Your task to perform on an android device: Search for acer predator on amazon.com, select the first entry, and add it to the cart. Image 0: 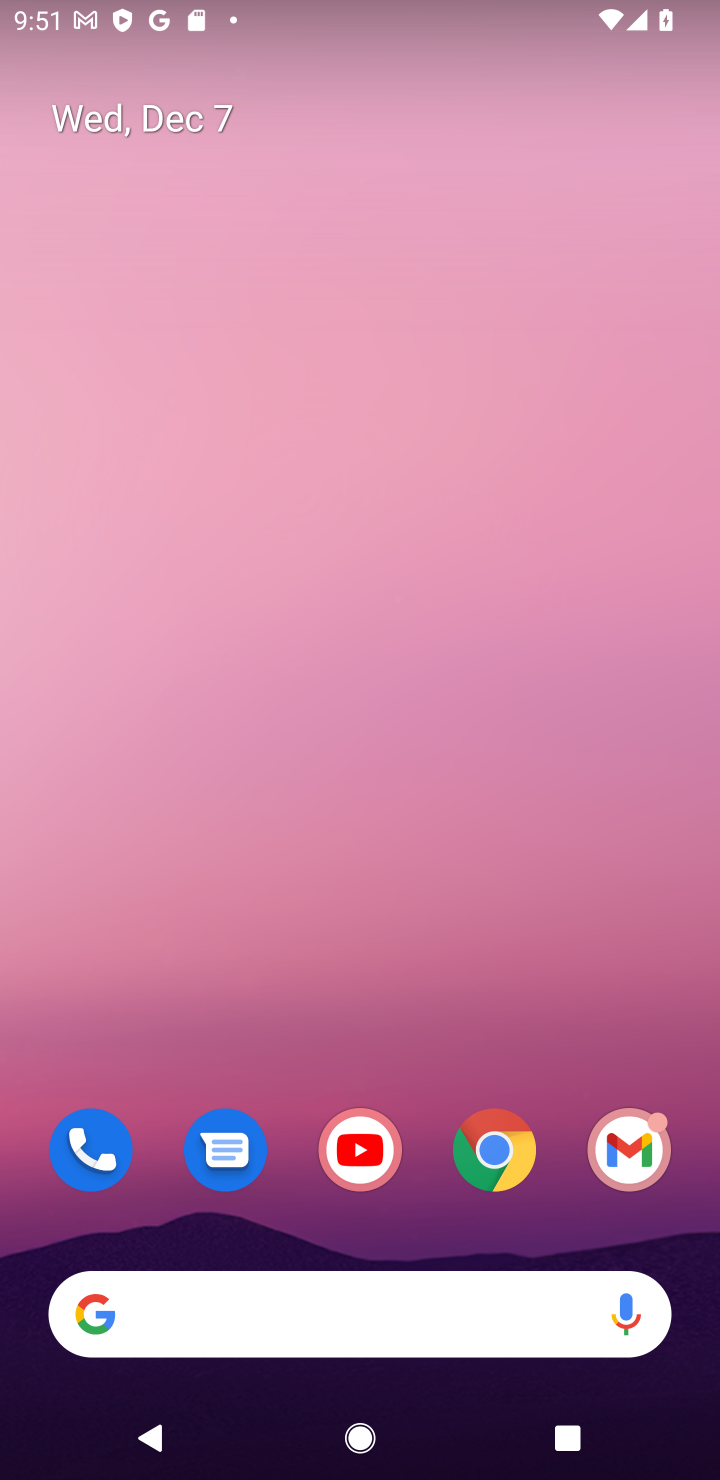
Step 0: click (498, 1142)
Your task to perform on an android device: Search for acer predator on amazon.com, select the first entry, and add it to the cart. Image 1: 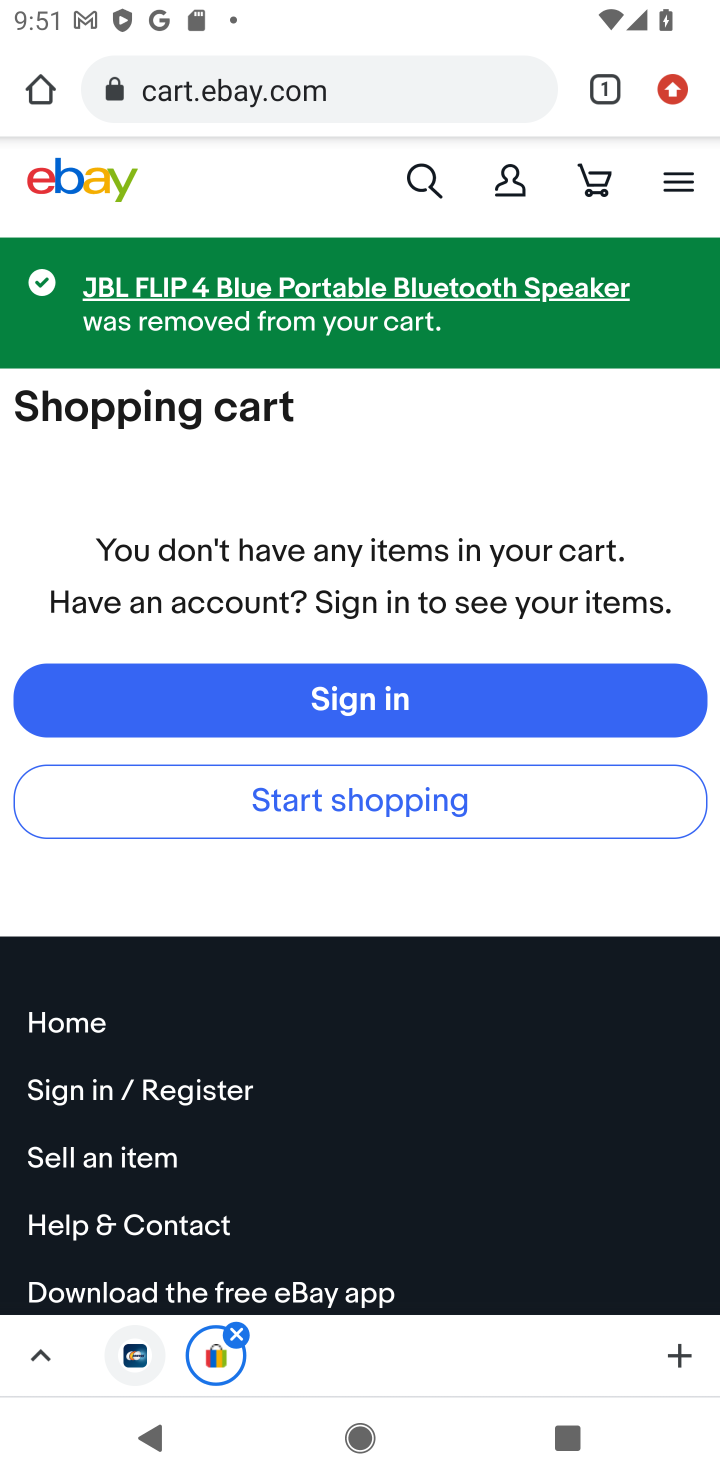
Step 1: click (422, 93)
Your task to perform on an android device: Search for acer predator on amazon.com, select the first entry, and add it to the cart. Image 2: 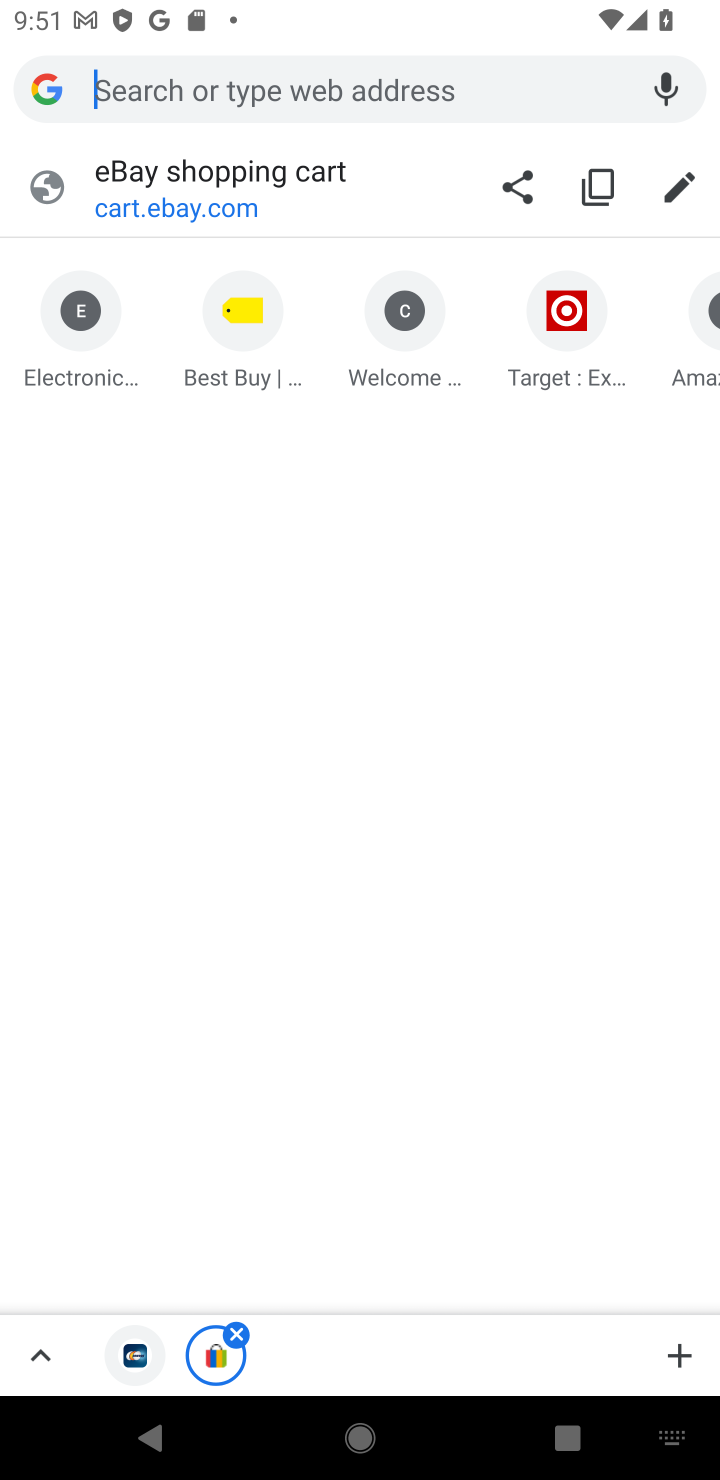
Step 2: type "amazon.com"
Your task to perform on an android device: Search for acer predator on amazon.com, select the first entry, and add it to the cart. Image 3: 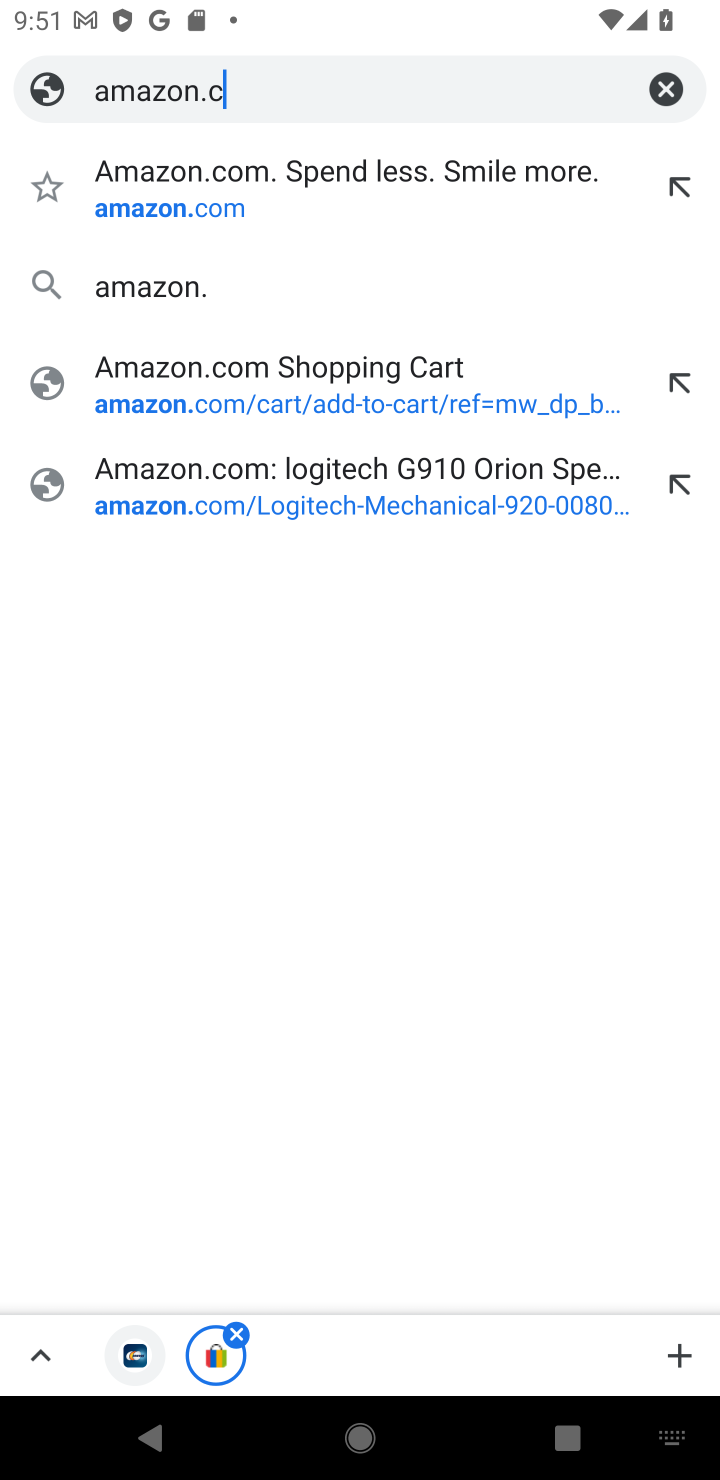
Step 3: press enter
Your task to perform on an android device: Search for acer predator on amazon.com, select the first entry, and add it to the cart. Image 4: 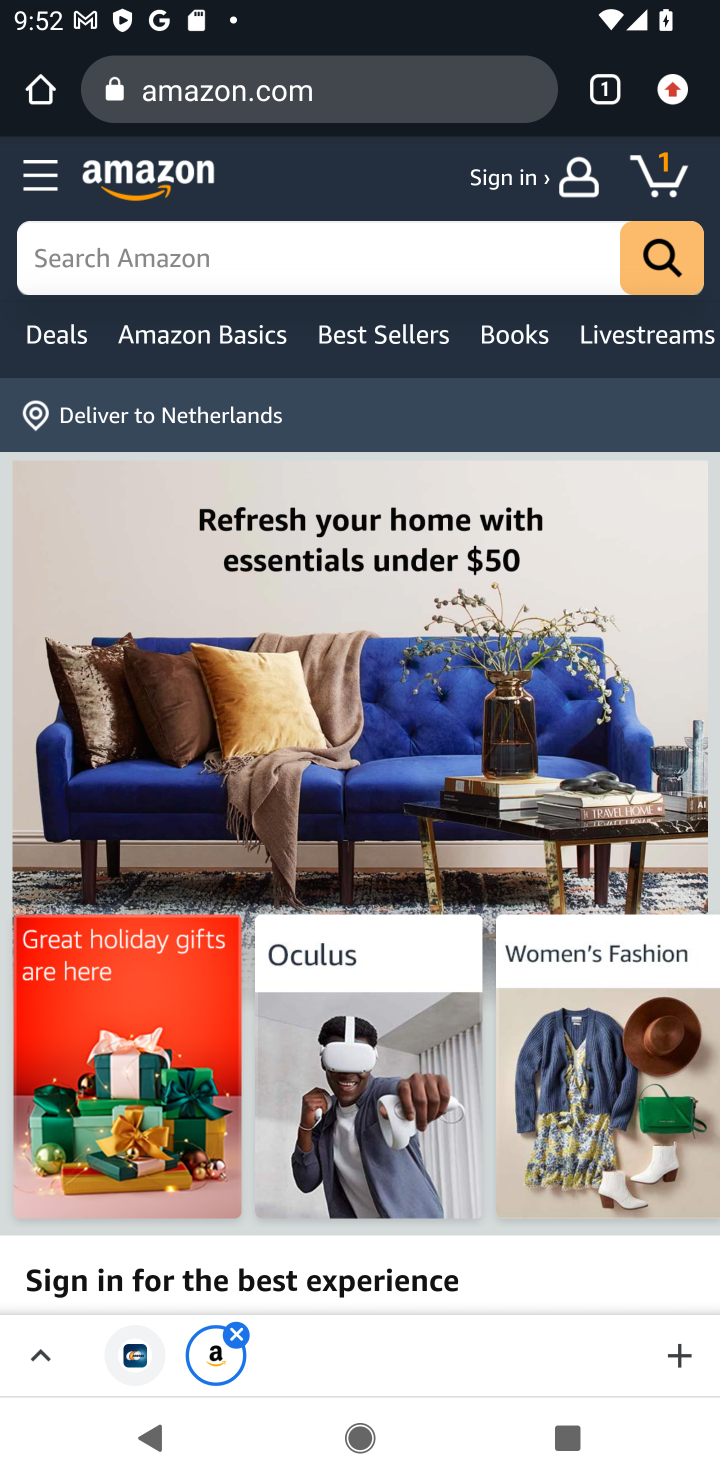
Step 4: click (353, 239)
Your task to perform on an android device: Search for acer predator on amazon.com, select the first entry, and add it to the cart. Image 5: 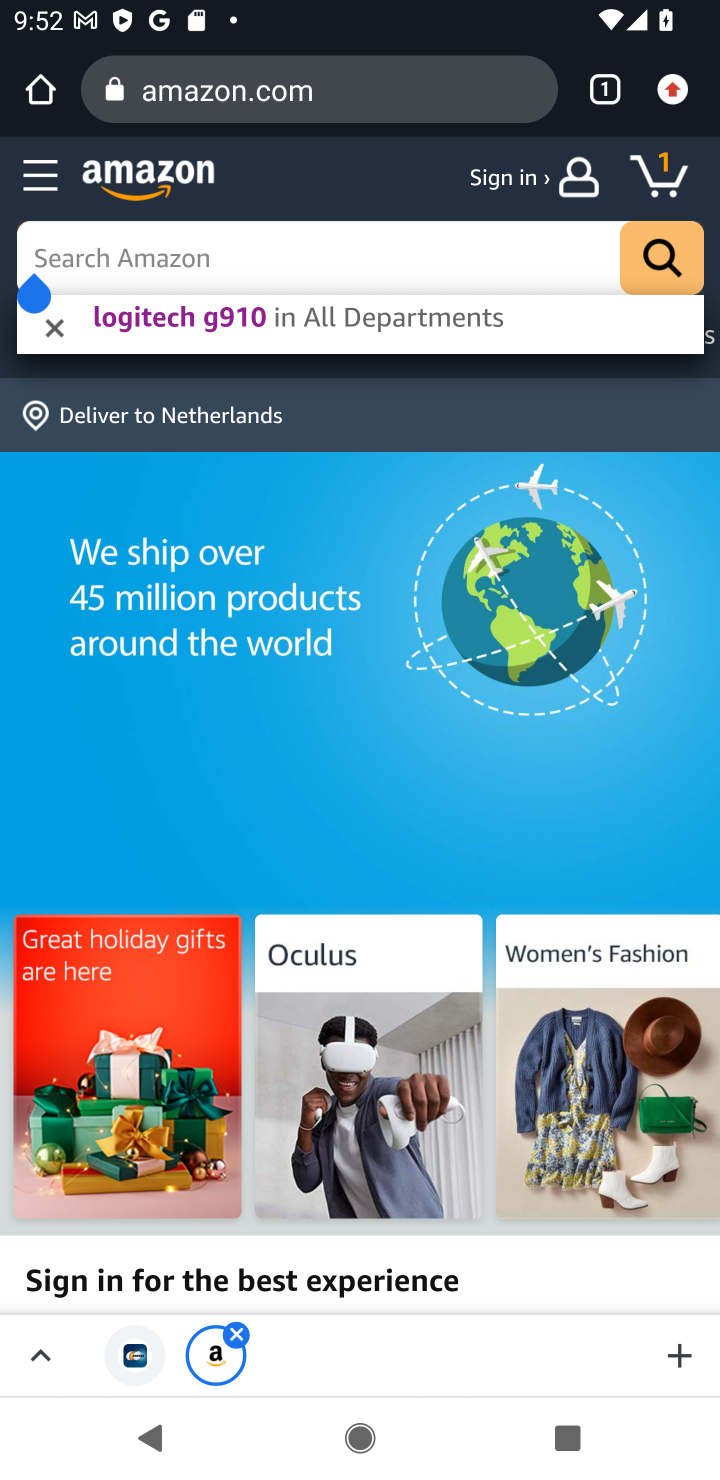
Step 5: press enter
Your task to perform on an android device: Search for acer predator on amazon.com, select the first entry, and add it to the cart. Image 6: 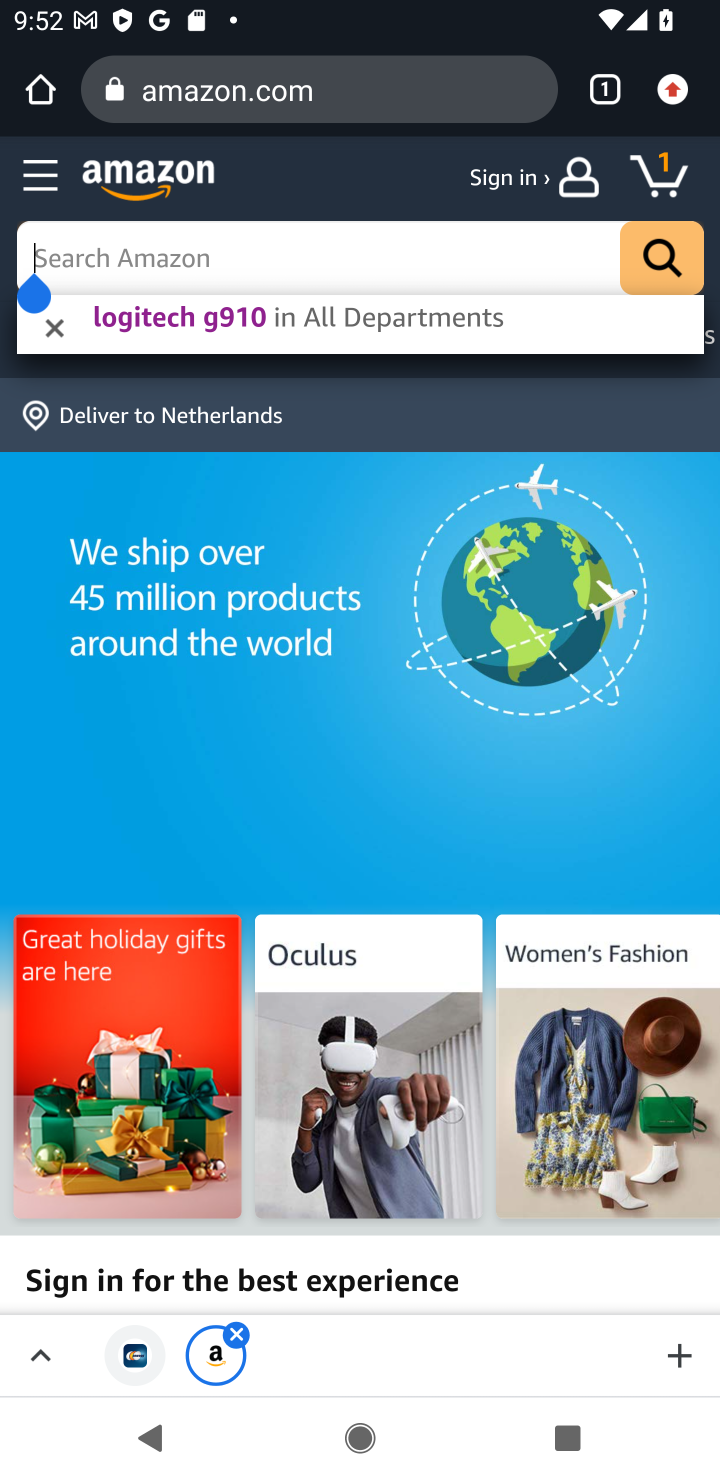
Step 6: type "acer predator"
Your task to perform on an android device: Search for acer predator on amazon.com, select the first entry, and add it to the cart. Image 7: 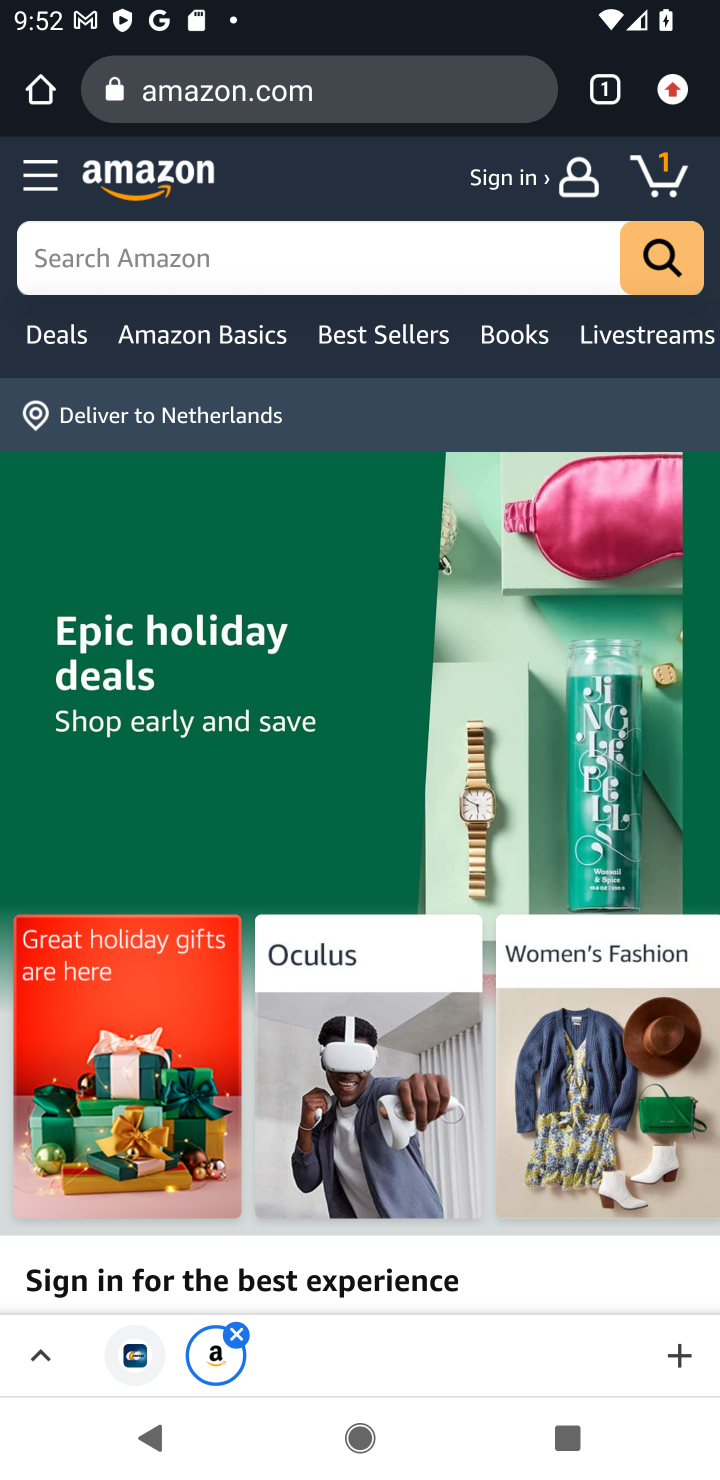
Step 7: type "acer predator"
Your task to perform on an android device: Search for acer predator on amazon.com, select the first entry, and add it to the cart. Image 8: 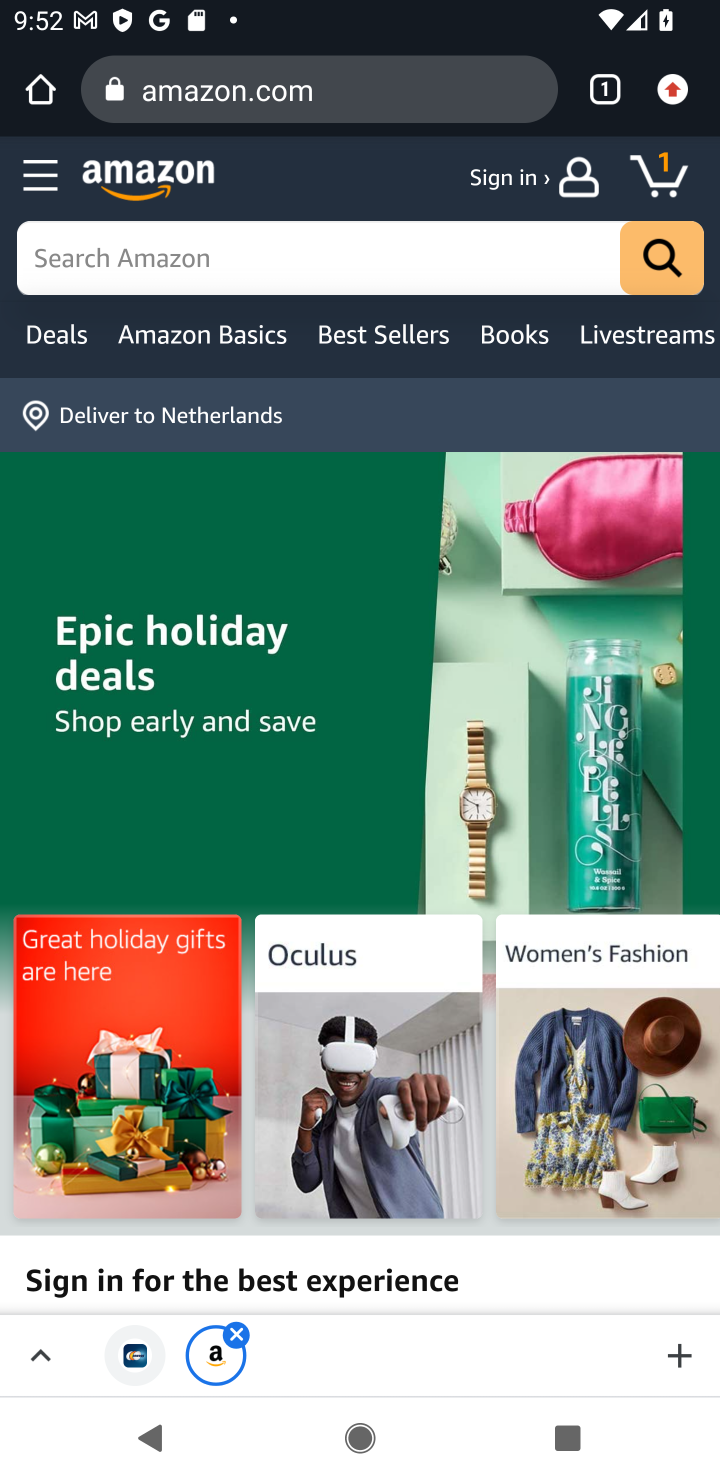
Step 8: press enter
Your task to perform on an android device: Search for acer predator on amazon.com, select the first entry, and add it to the cart. Image 9: 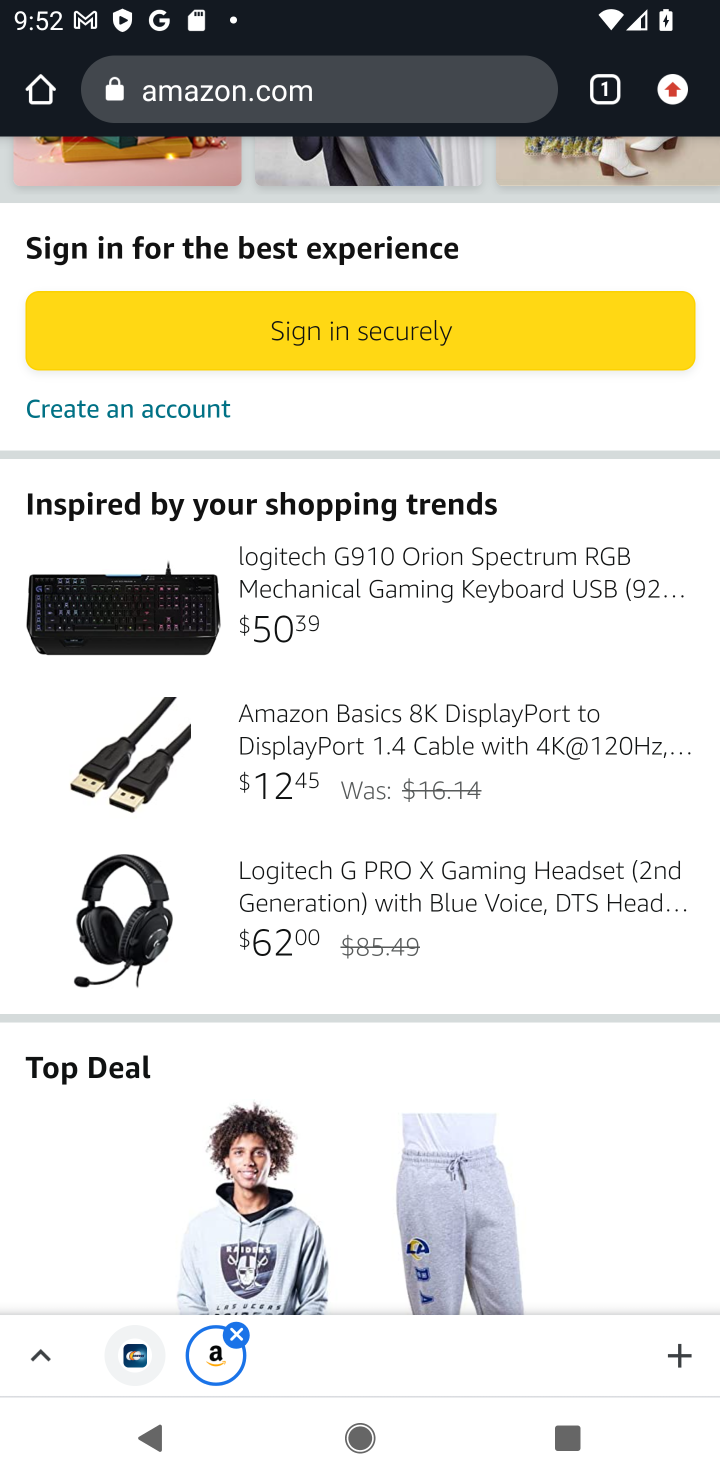
Step 9: drag from (519, 426) to (669, 1417)
Your task to perform on an android device: Search for acer predator on amazon.com, select the first entry, and add it to the cart. Image 10: 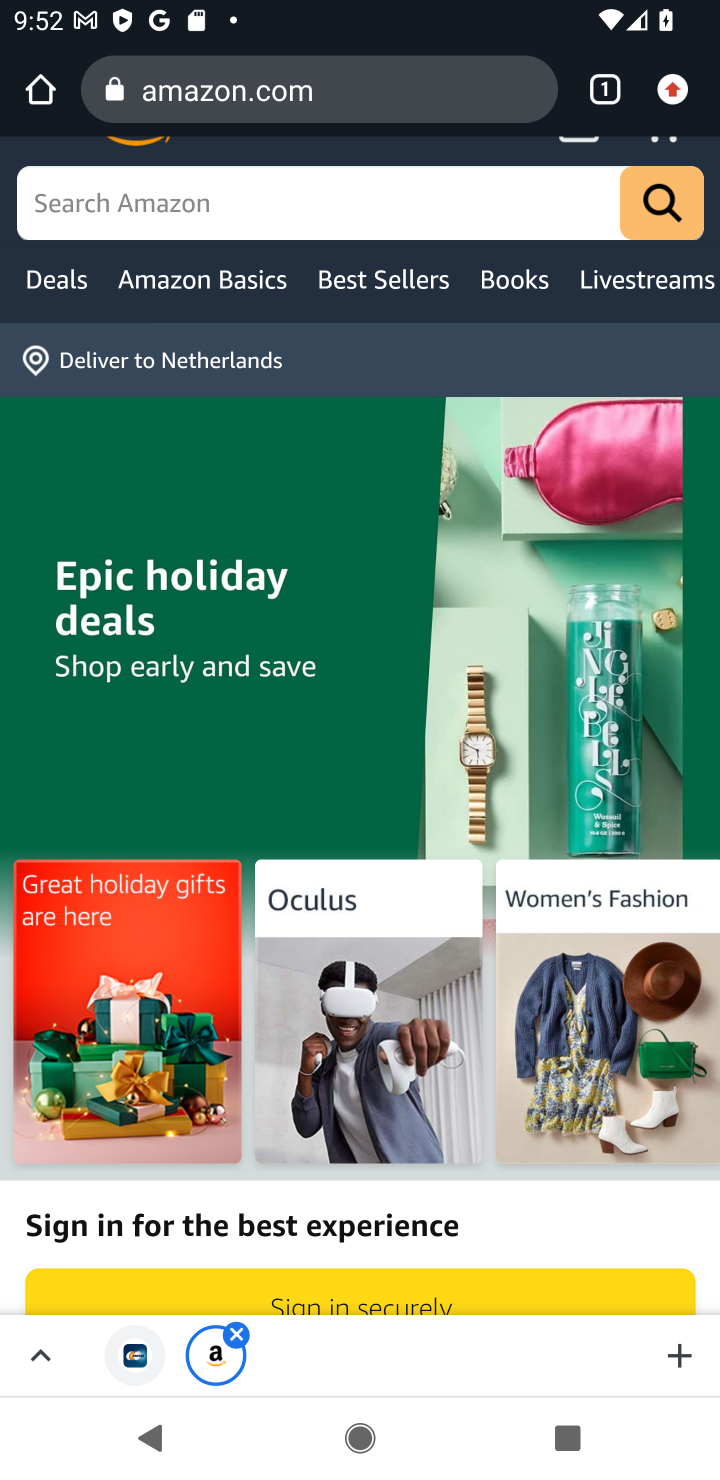
Step 10: click (467, 203)
Your task to perform on an android device: Search for acer predator on amazon.com, select the first entry, and add it to the cart. Image 11: 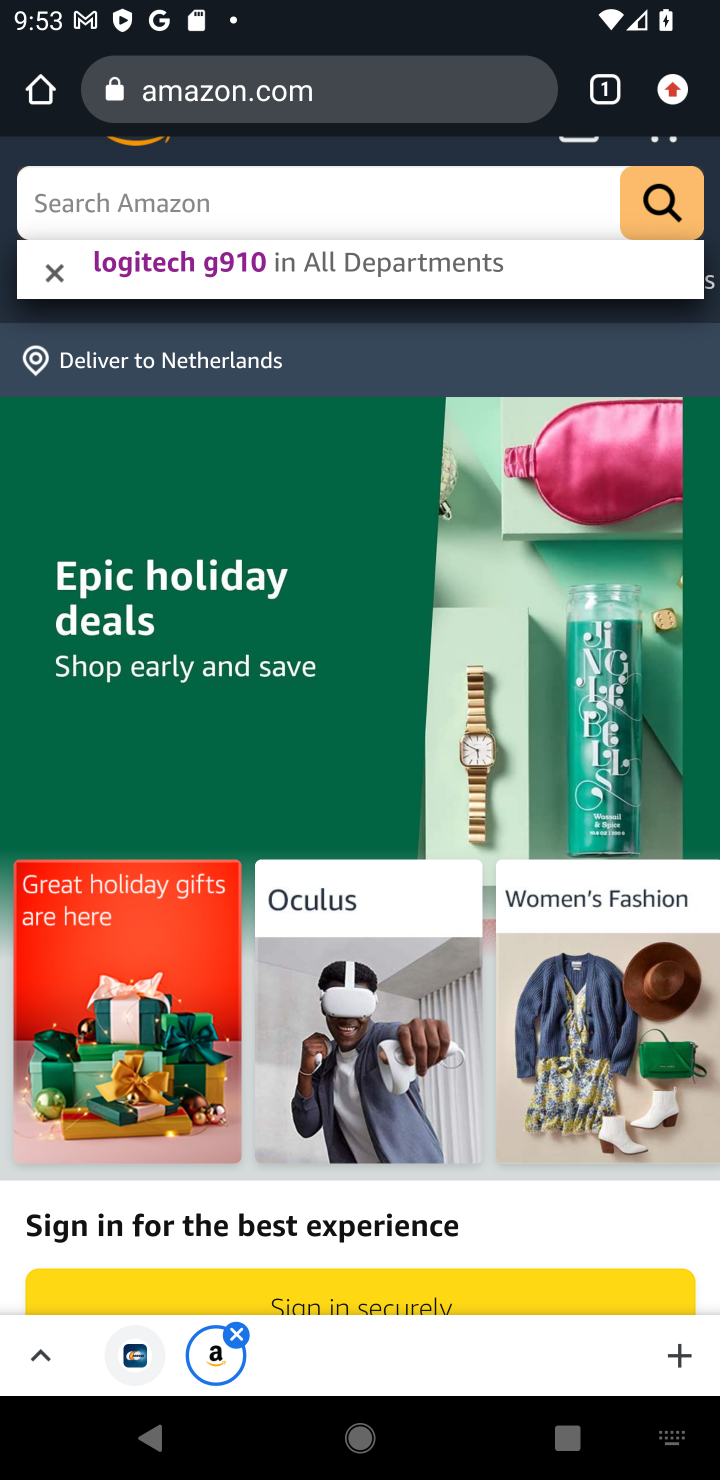
Step 11: type "acer predator"
Your task to perform on an android device: Search for acer predator on amazon.com, select the first entry, and add it to the cart. Image 12: 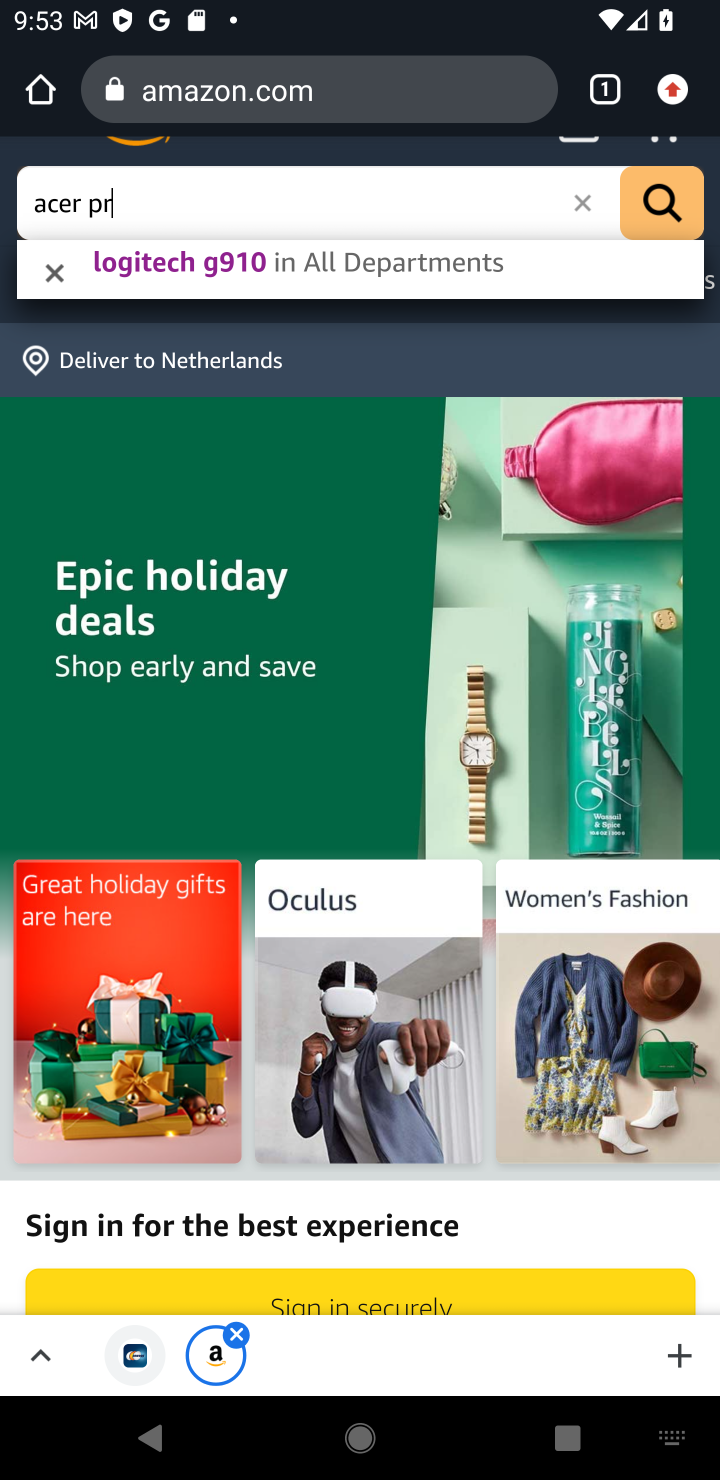
Step 12: press enter
Your task to perform on an android device: Search for acer predator on amazon.com, select the first entry, and add it to the cart. Image 13: 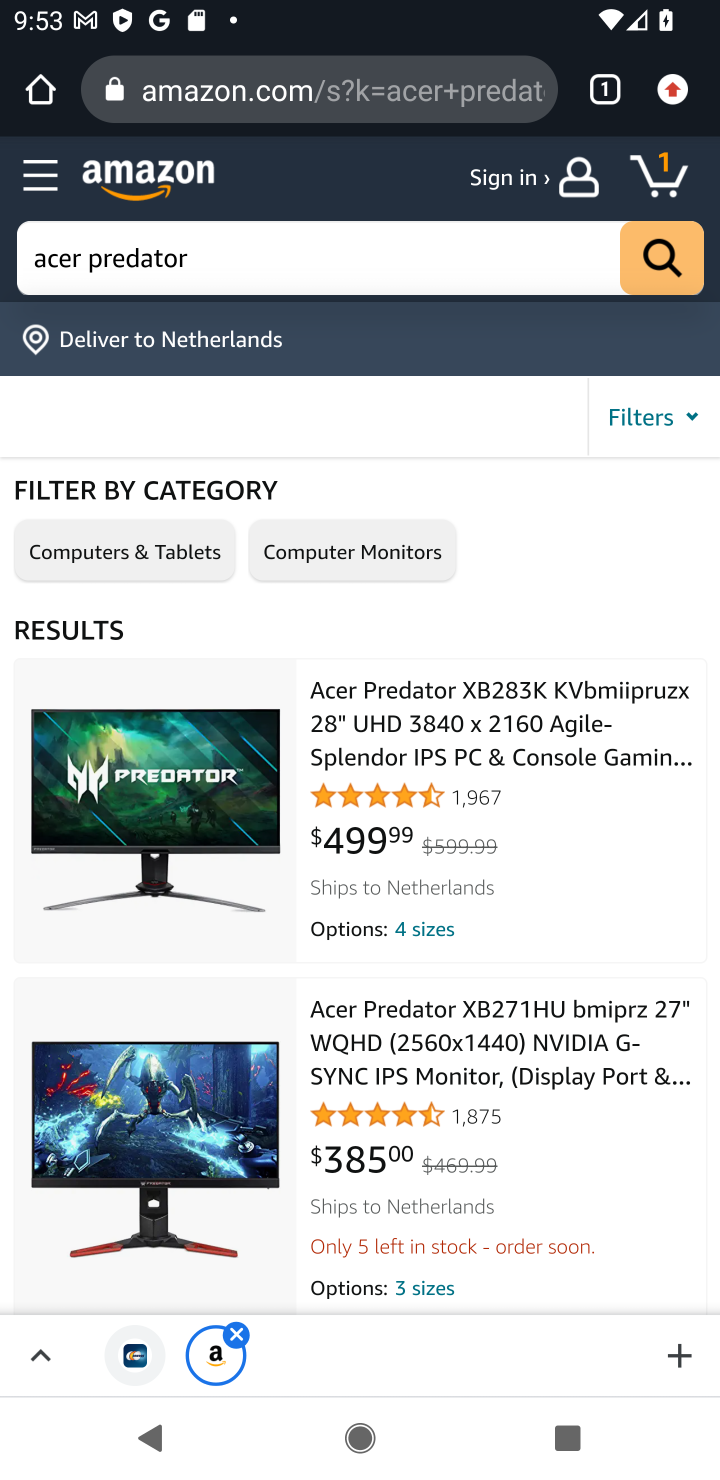
Step 13: click (243, 779)
Your task to perform on an android device: Search for acer predator on amazon.com, select the first entry, and add it to the cart. Image 14: 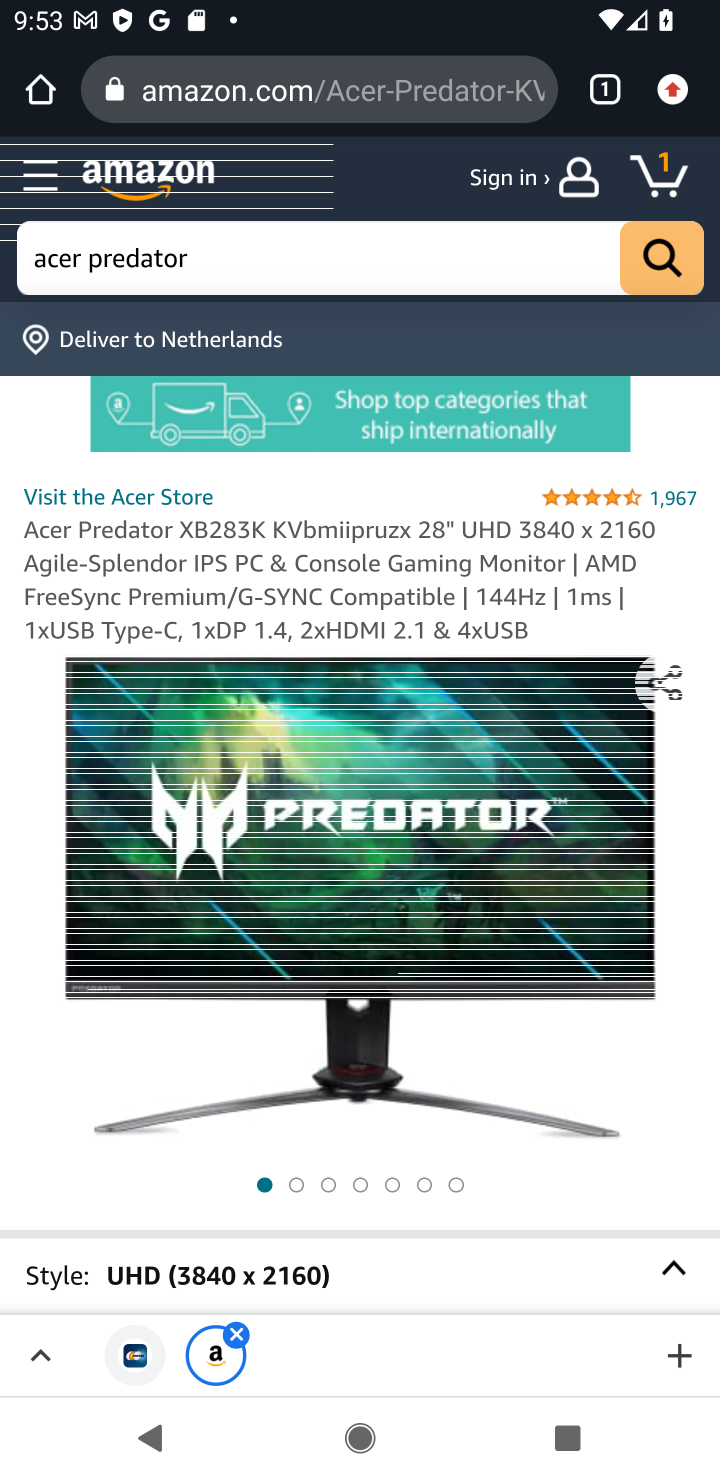
Step 14: drag from (532, 1002) to (557, 621)
Your task to perform on an android device: Search for acer predator on amazon.com, select the first entry, and add it to the cart. Image 15: 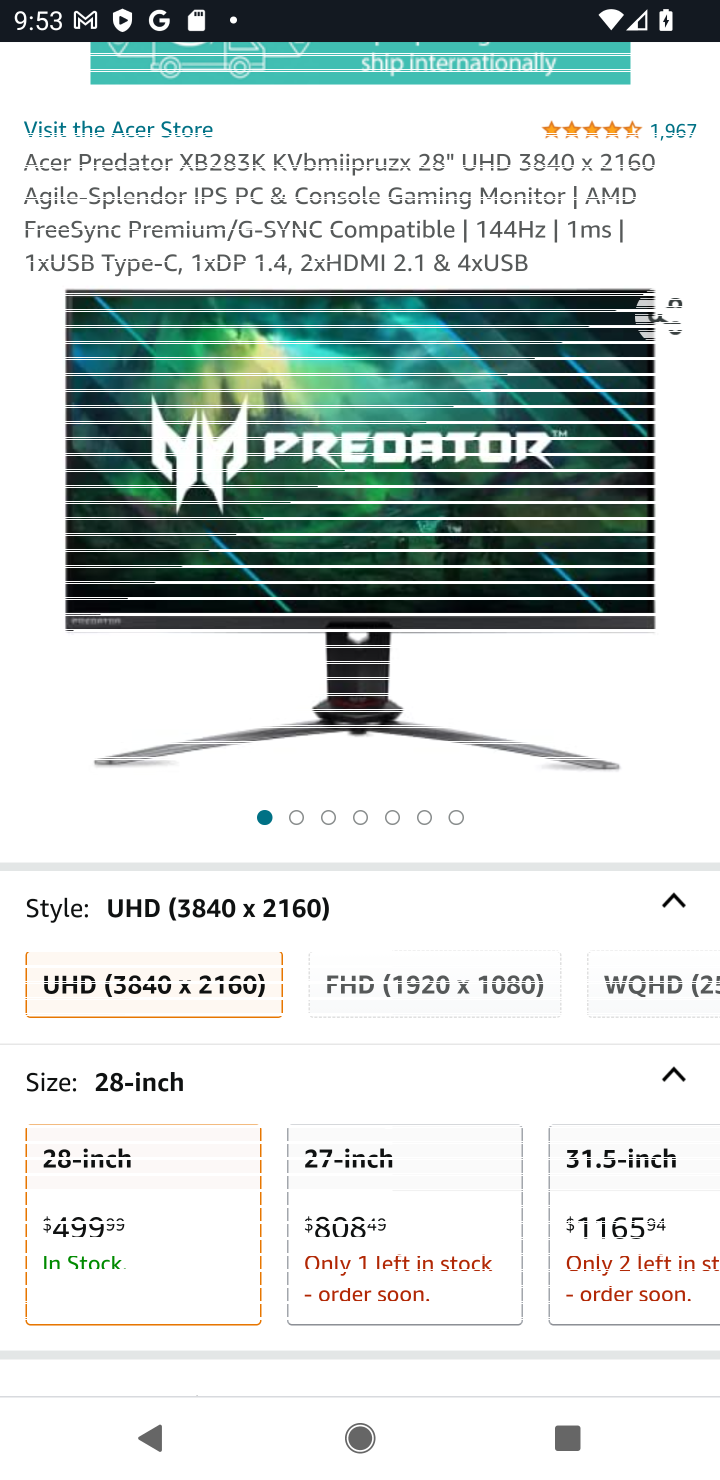
Step 15: drag from (521, 1108) to (521, 506)
Your task to perform on an android device: Search for acer predator on amazon.com, select the first entry, and add it to the cart. Image 16: 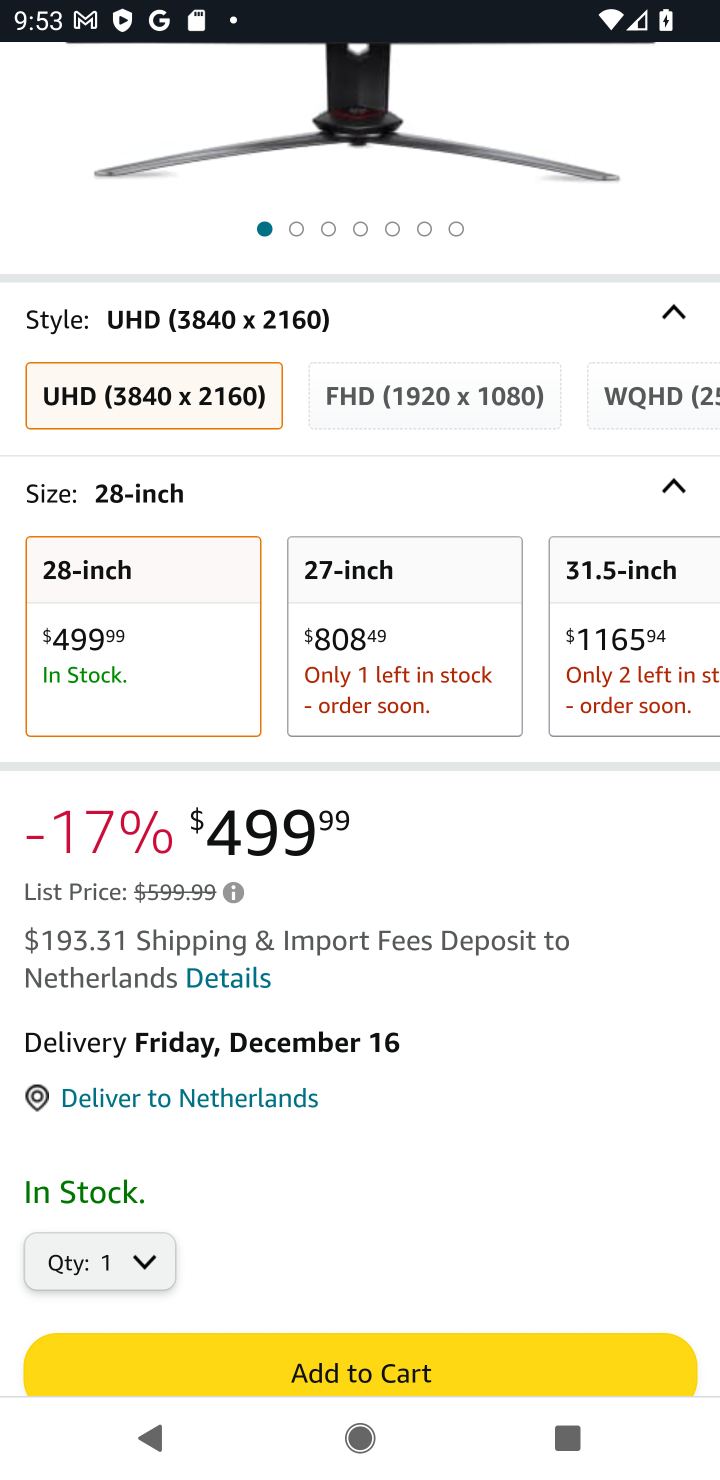
Step 16: drag from (471, 1195) to (482, 814)
Your task to perform on an android device: Search for acer predator on amazon.com, select the first entry, and add it to the cart. Image 17: 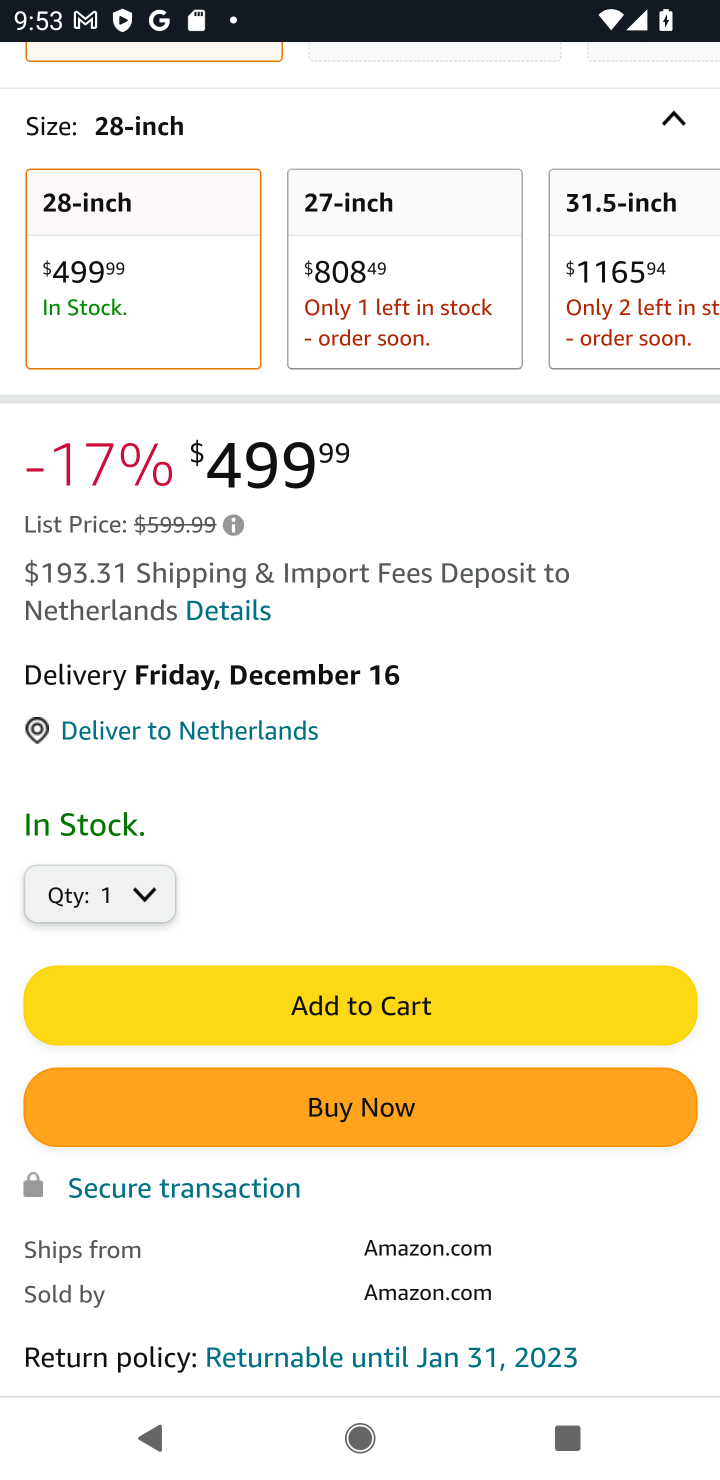
Step 17: click (427, 982)
Your task to perform on an android device: Search for acer predator on amazon.com, select the first entry, and add it to the cart. Image 18: 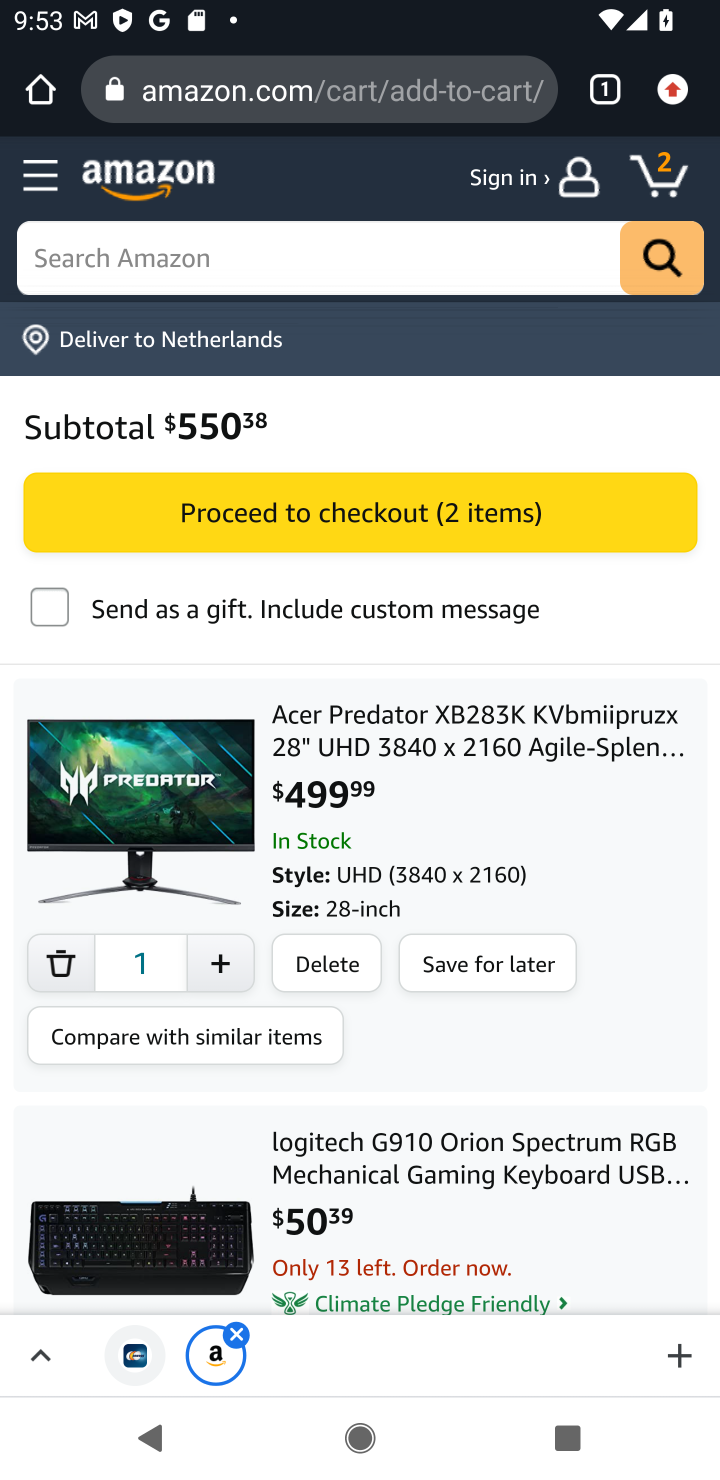
Step 18: task complete